Your task to perform on an android device: open a bookmark in the chrome app Image 0: 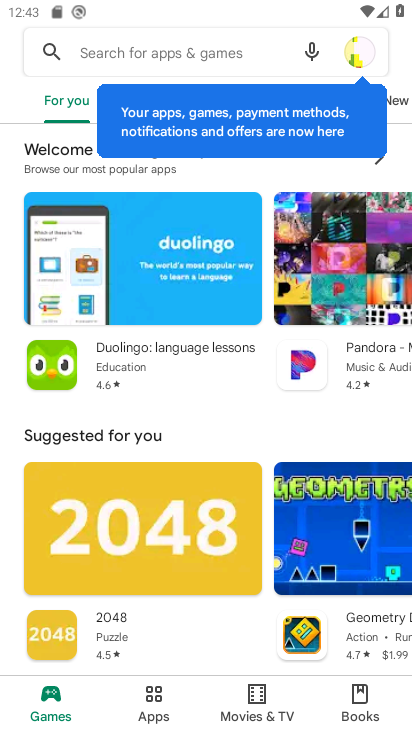
Step 0: press home button
Your task to perform on an android device: open a bookmark in the chrome app Image 1: 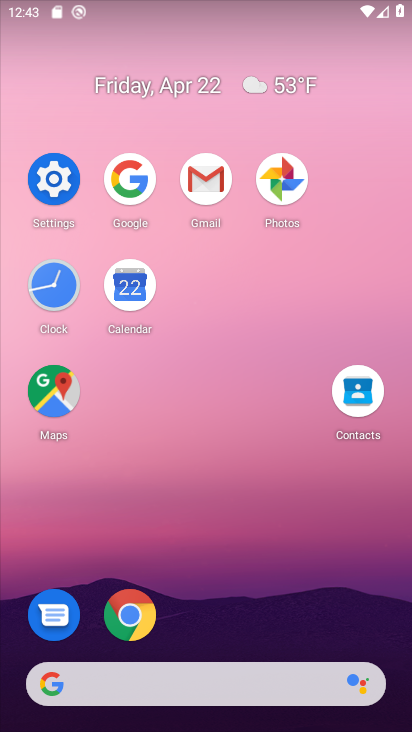
Step 1: click (141, 622)
Your task to perform on an android device: open a bookmark in the chrome app Image 2: 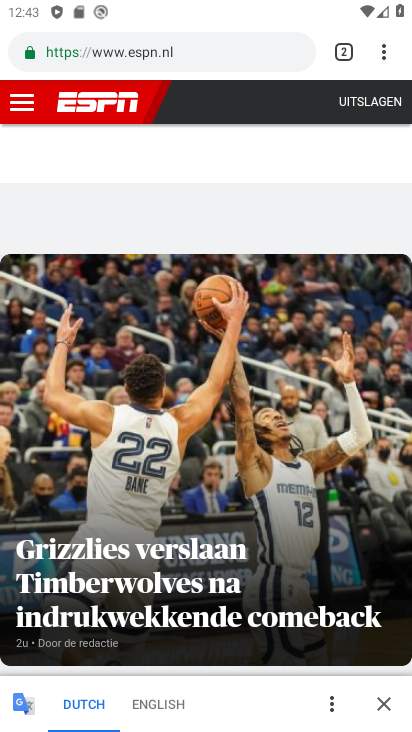
Step 2: click (388, 42)
Your task to perform on an android device: open a bookmark in the chrome app Image 3: 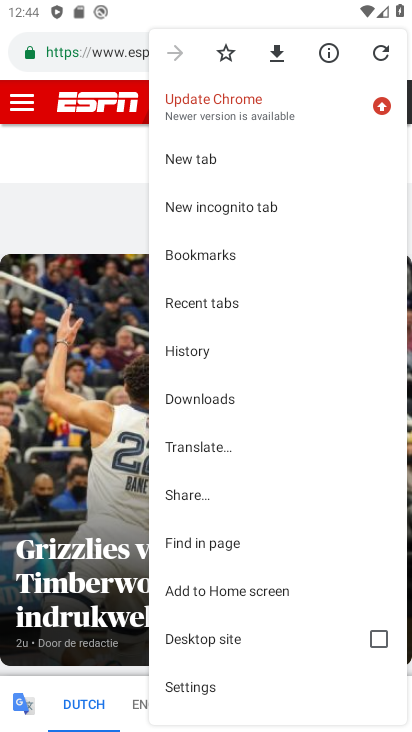
Step 3: click (239, 257)
Your task to perform on an android device: open a bookmark in the chrome app Image 4: 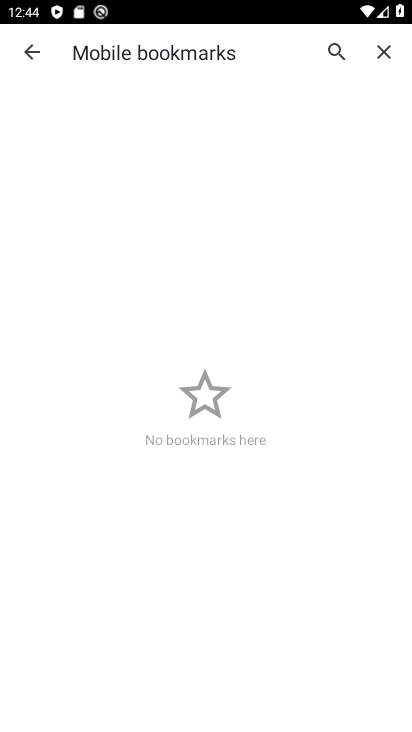
Step 4: task complete